Your task to perform on an android device: Open Google Image 0: 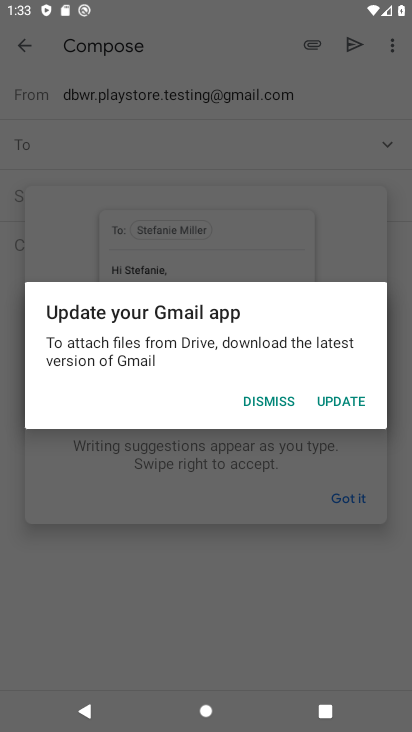
Step 0: press home button
Your task to perform on an android device: Open Google Image 1: 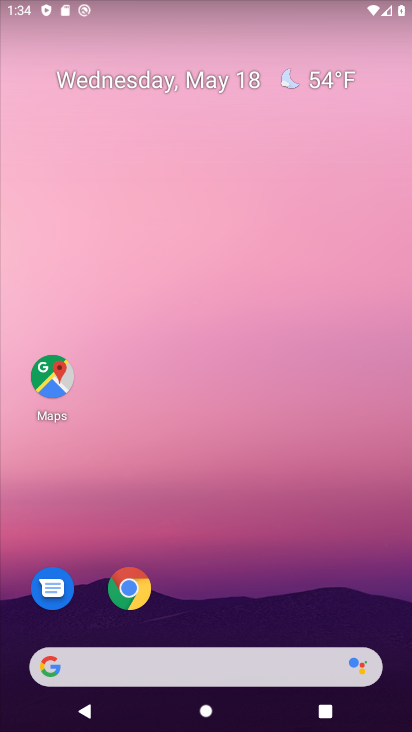
Step 1: drag from (148, 650) to (158, 266)
Your task to perform on an android device: Open Google Image 2: 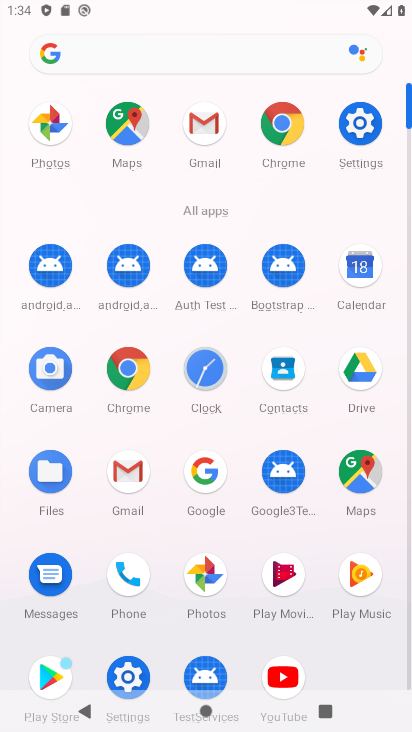
Step 2: click (199, 483)
Your task to perform on an android device: Open Google Image 3: 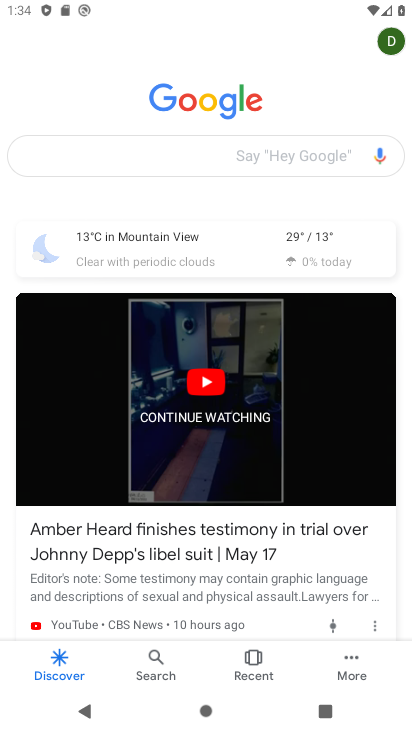
Step 3: task complete